Your task to perform on an android device: move a message to another label in the gmail app Image 0: 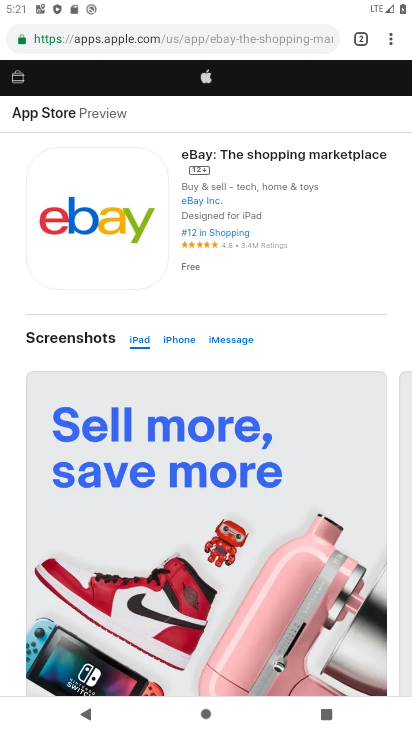
Step 0: press home button
Your task to perform on an android device: move a message to another label in the gmail app Image 1: 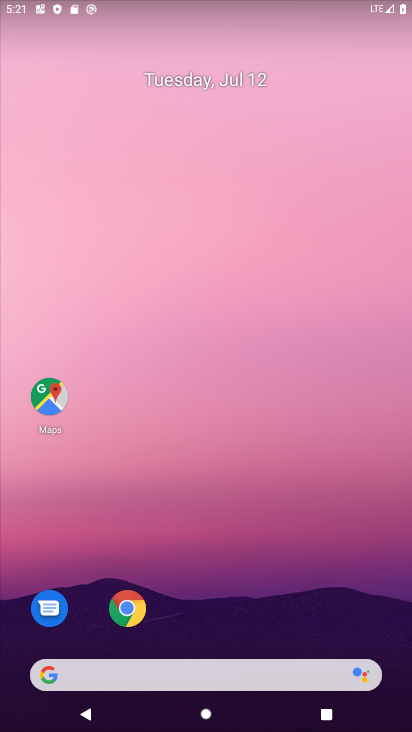
Step 1: drag from (183, 632) to (144, 118)
Your task to perform on an android device: move a message to another label in the gmail app Image 2: 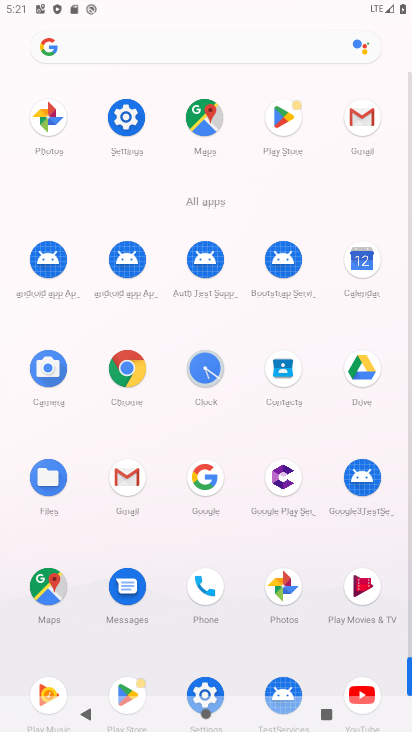
Step 2: click (373, 101)
Your task to perform on an android device: move a message to another label in the gmail app Image 3: 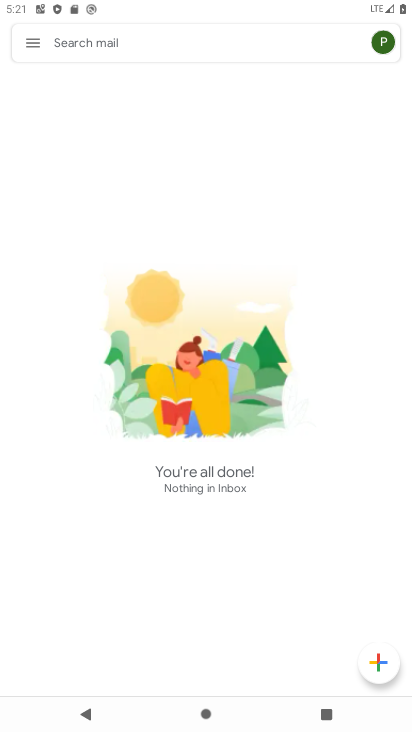
Step 3: task complete